Your task to perform on an android device: open app "Paramount+ | Peak Streaming" (install if not already installed) and enter user name: "fostered@yahoo.com" and password: "strong" Image 0: 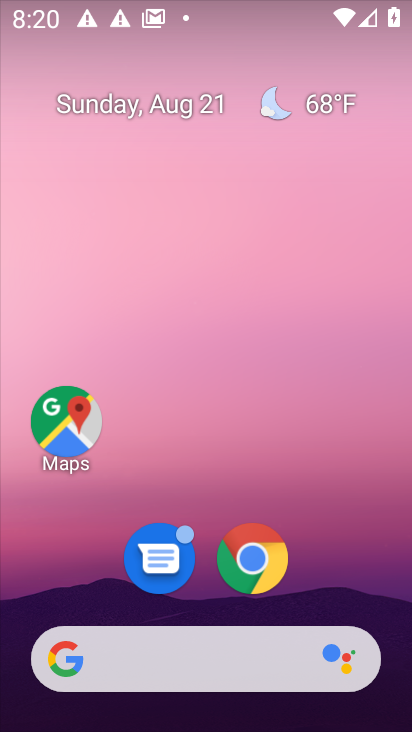
Step 0: drag from (199, 636) to (184, 103)
Your task to perform on an android device: open app "Paramount+ | Peak Streaming" (install if not already installed) and enter user name: "fostered@yahoo.com" and password: "strong" Image 1: 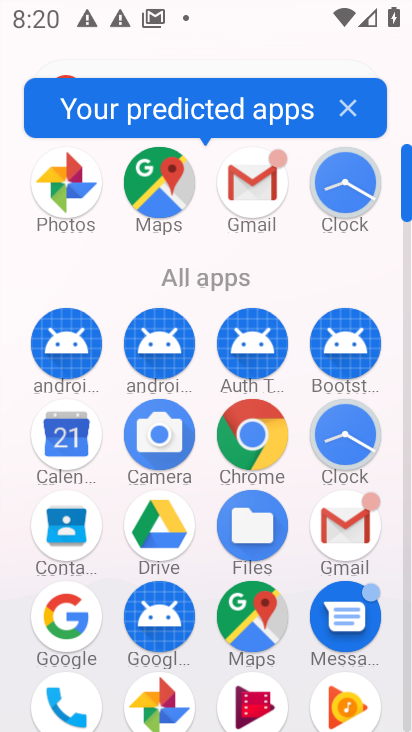
Step 1: drag from (198, 597) to (220, 178)
Your task to perform on an android device: open app "Paramount+ | Peak Streaming" (install if not already installed) and enter user name: "fostered@yahoo.com" and password: "strong" Image 2: 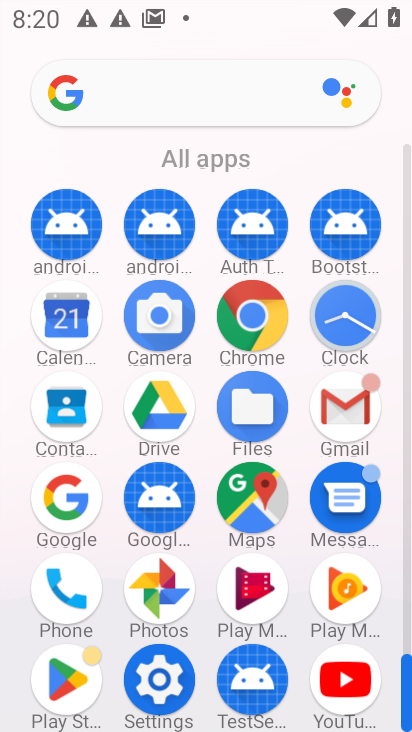
Step 2: click (70, 664)
Your task to perform on an android device: open app "Paramount+ | Peak Streaming" (install if not already installed) and enter user name: "fostered@yahoo.com" and password: "strong" Image 3: 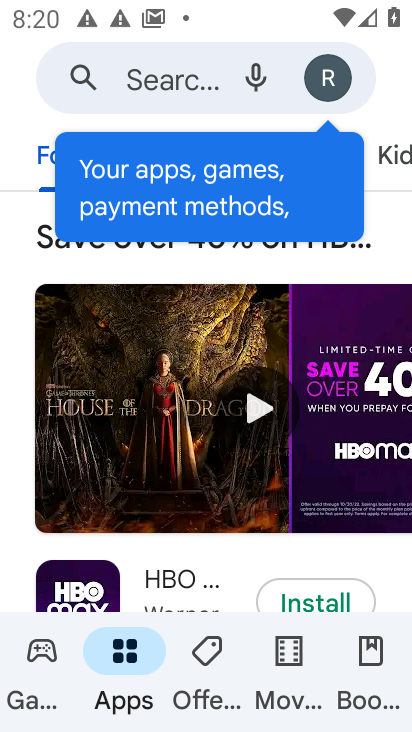
Step 3: click (171, 91)
Your task to perform on an android device: open app "Paramount+ | Peak Streaming" (install if not already installed) and enter user name: "fostered@yahoo.com" and password: "strong" Image 4: 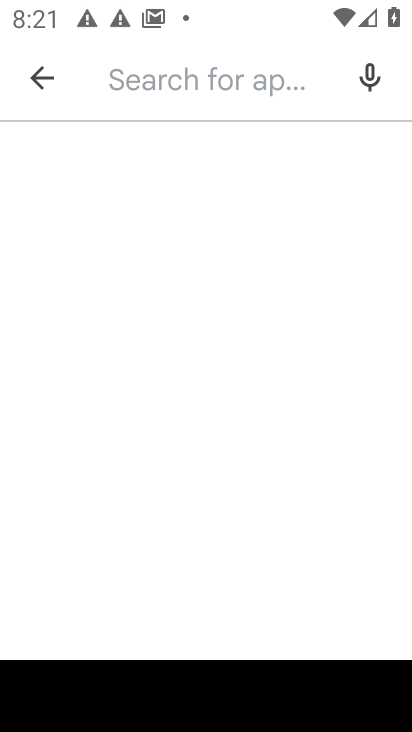
Step 4: type "paramount+"
Your task to perform on an android device: open app "Paramount+ | Peak Streaming" (install if not already installed) and enter user name: "fostered@yahoo.com" and password: "strong" Image 5: 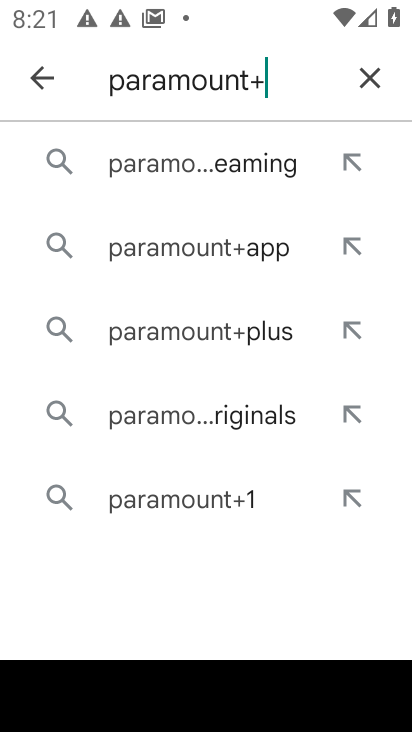
Step 5: click (120, 156)
Your task to perform on an android device: open app "Paramount+ | Peak Streaming" (install if not already installed) and enter user name: "fostered@yahoo.com" and password: "strong" Image 6: 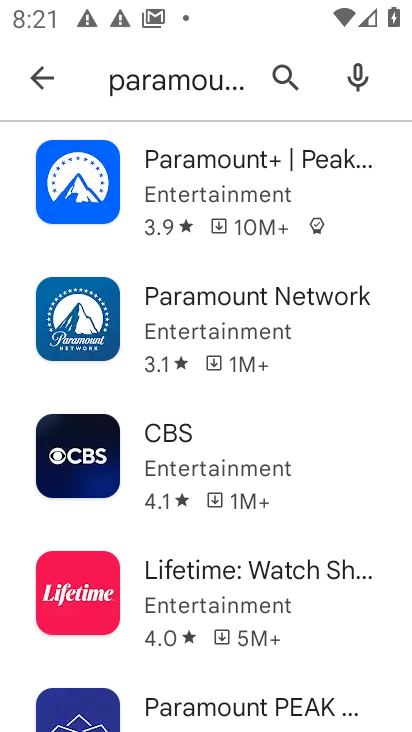
Step 6: click (127, 211)
Your task to perform on an android device: open app "Paramount+ | Peak Streaming" (install if not already installed) and enter user name: "fostered@yahoo.com" and password: "strong" Image 7: 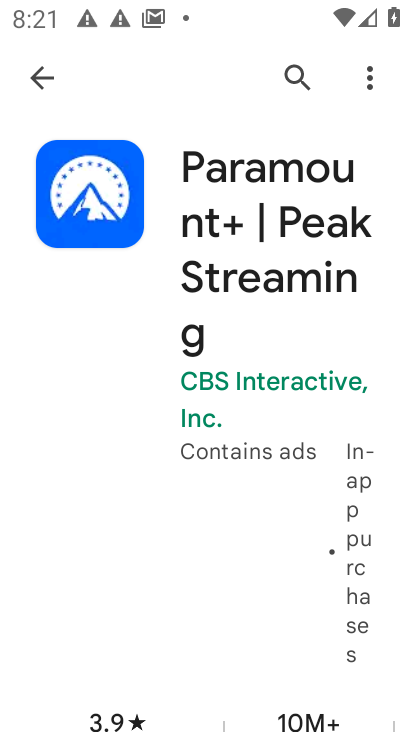
Step 7: drag from (158, 532) to (147, 81)
Your task to perform on an android device: open app "Paramount+ | Peak Streaming" (install if not already installed) and enter user name: "fostered@yahoo.com" and password: "strong" Image 8: 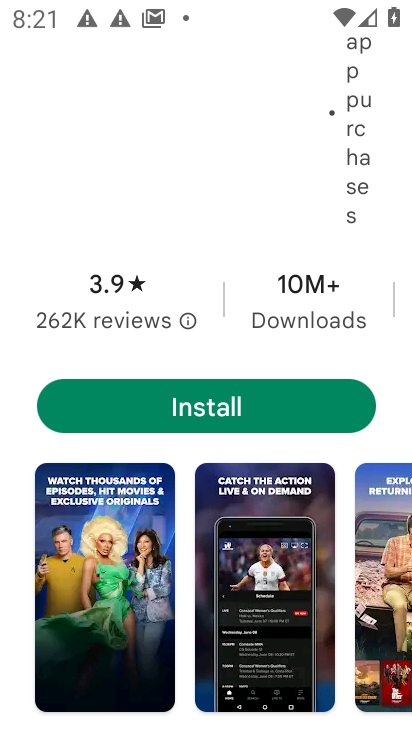
Step 8: click (161, 408)
Your task to perform on an android device: open app "Paramount+ | Peak Streaming" (install if not already installed) and enter user name: "fostered@yahoo.com" and password: "strong" Image 9: 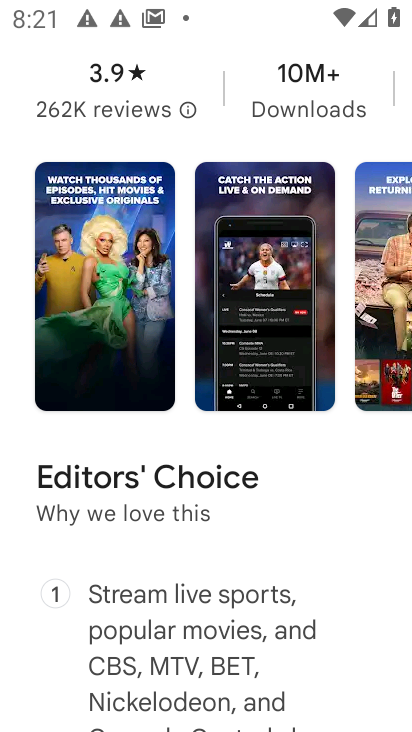
Step 9: drag from (190, 233) to (257, 702)
Your task to perform on an android device: open app "Paramount+ | Peak Streaming" (install if not already installed) and enter user name: "fostered@yahoo.com" and password: "strong" Image 10: 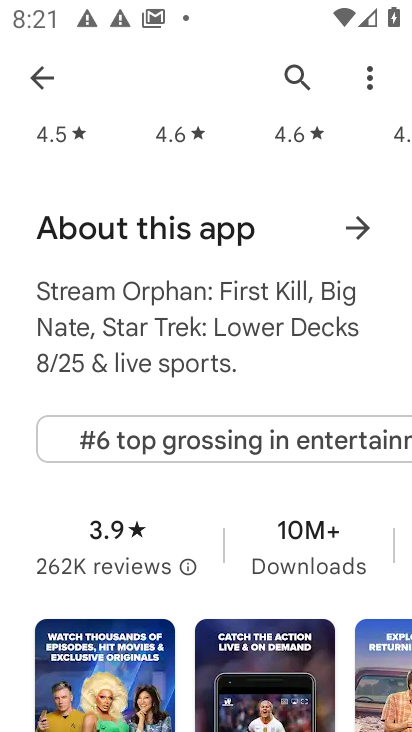
Step 10: drag from (253, 276) to (257, 719)
Your task to perform on an android device: open app "Paramount+ | Peak Streaming" (install if not already installed) and enter user name: "fostered@yahoo.com" and password: "strong" Image 11: 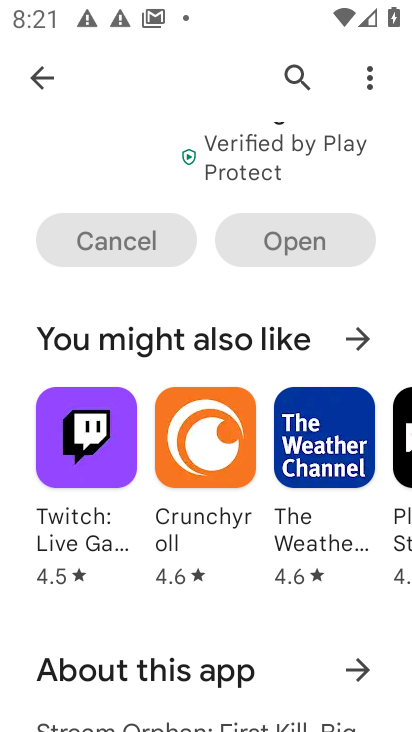
Step 11: drag from (190, 358) to (227, 703)
Your task to perform on an android device: open app "Paramount+ | Peak Streaming" (install if not already installed) and enter user name: "fostered@yahoo.com" and password: "strong" Image 12: 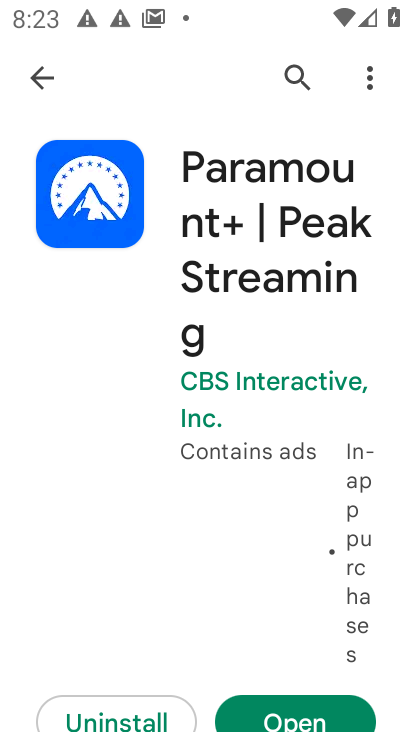
Step 12: click (278, 702)
Your task to perform on an android device: open app "Paramount+ | Peak Streaming" (install if not already installed) and enter user name: "fostered@yahoo.com" and password: "strong" Image 13: 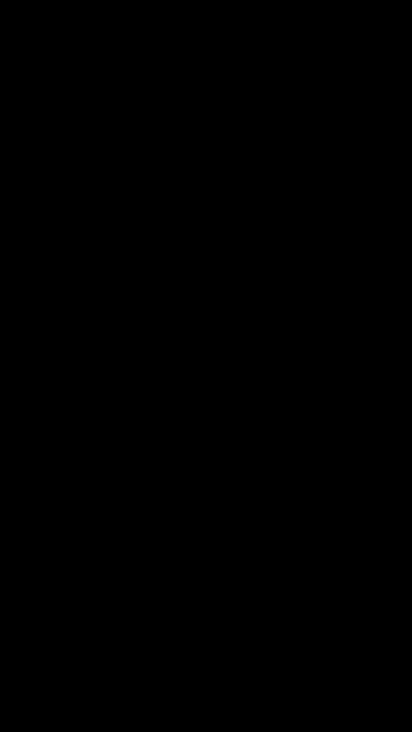
Step 13: task complete